Your task to perform on an android device: Search for sushi restaurants on Maps Image 0: 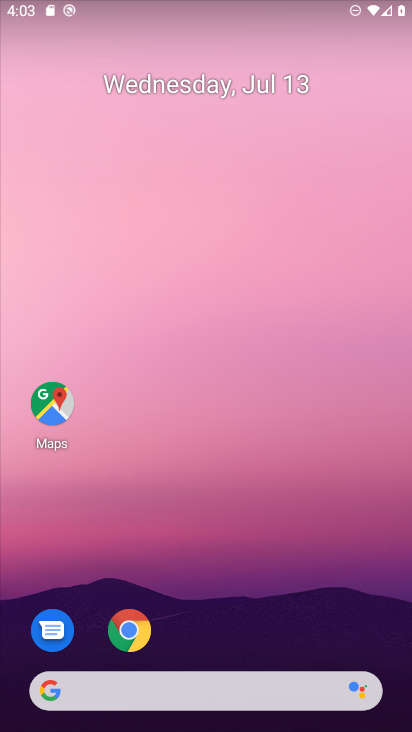
Step 0: click (130, 637)
Your task to perform on an android device: Search for sushi restaurants on Maps Image 1: 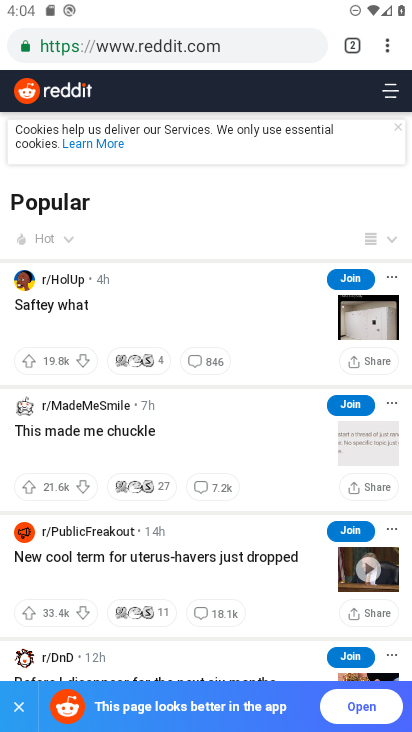
Step 1: press back button
Your task to perform on an android device: Search for sushi restaurants on Maps Image 2: 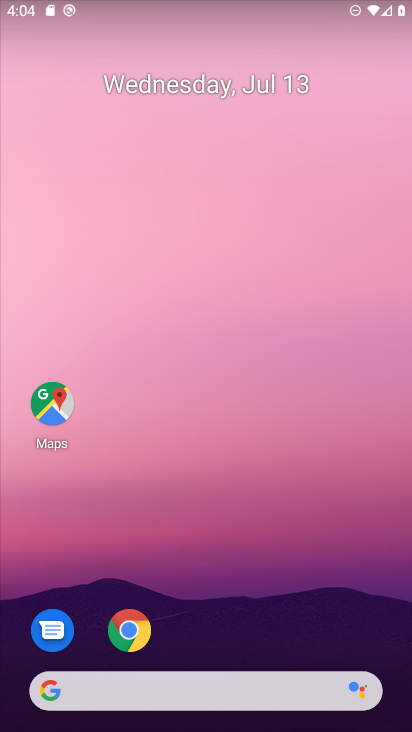
Step 2: click (132, 644)
Your task to perform on an android device: Search for sushi restaurants on Maps Image 3: 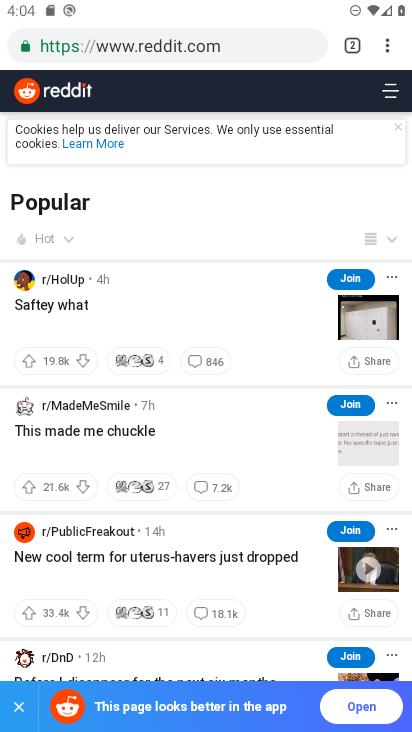
Step 3: click (260, 47)
Your task to perform on an android device: Search for sushi restaurants on Maps Image 4: 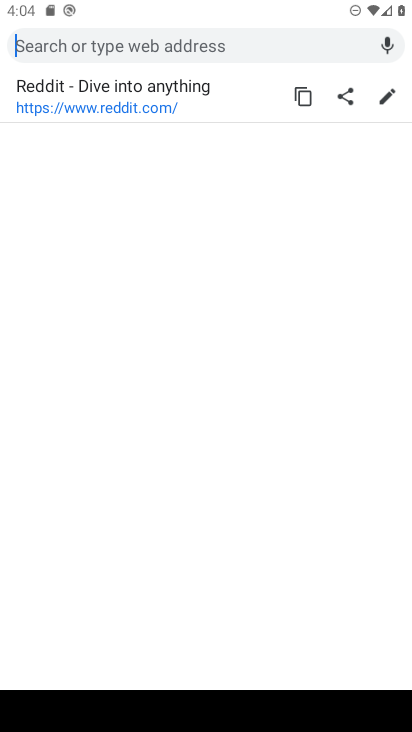
Step 4: type "sushi restaurants"
Your task to perform on an android device: Search for sushi restaurants on Maps Image 5: 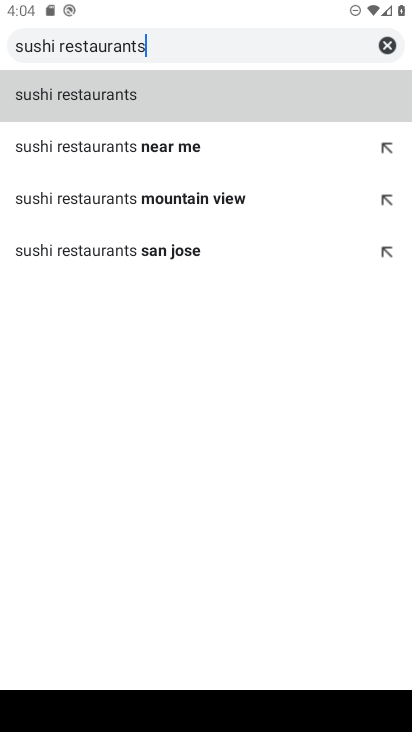
Step 5: click (93, 94)
Your task to perform on an android device: Search for sushi restaurants on Maps Image 6: 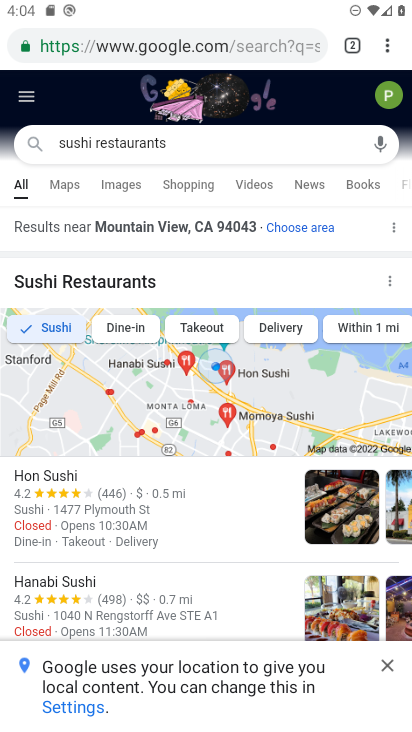
Step 6: task complete